Your task to perform on an android device: open app "VLC for Android" Image 0: 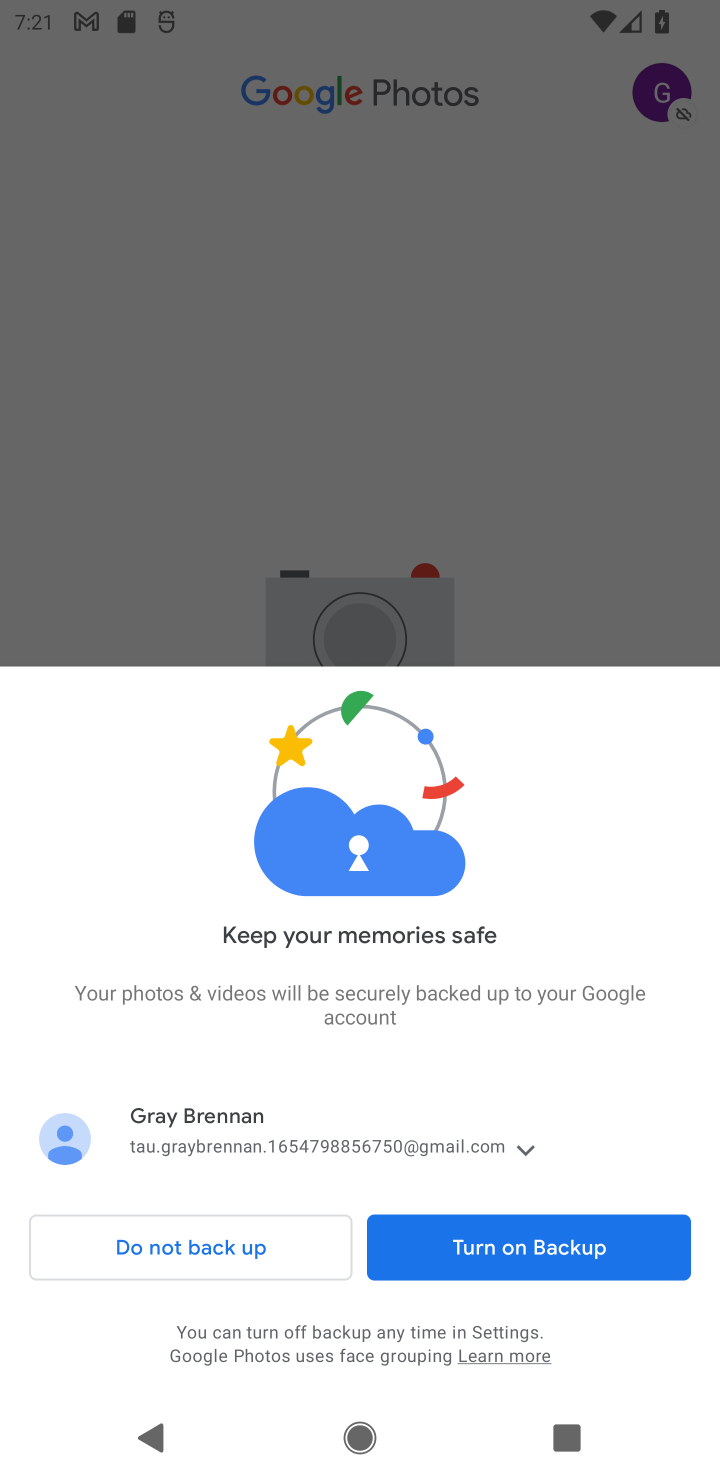
Step 0: press home button
Your task to perform on an android device: open app "VLC for Android" Image 1: 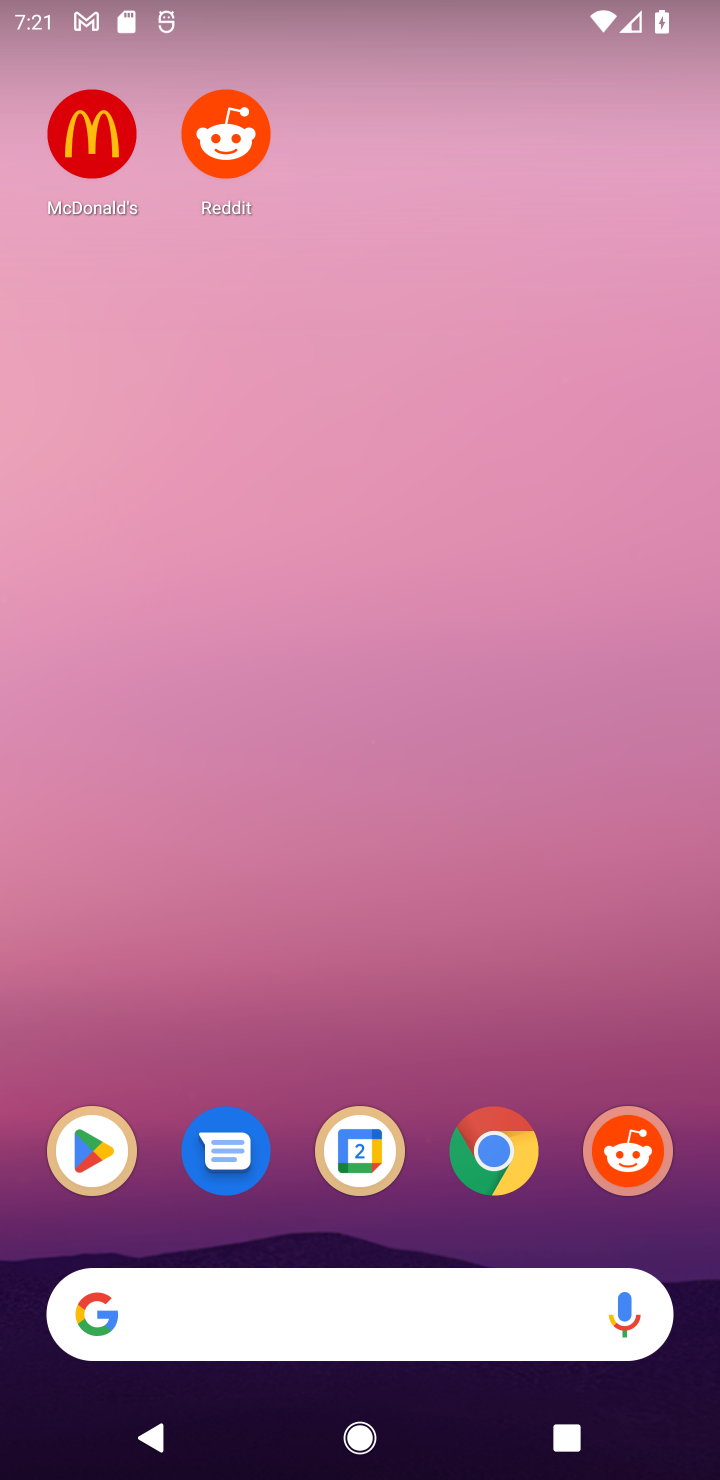
Step 1: drag from (379, 1258) to (230, 58)
Your task to perform on an android device: open app "VLC for Android" Image 2: 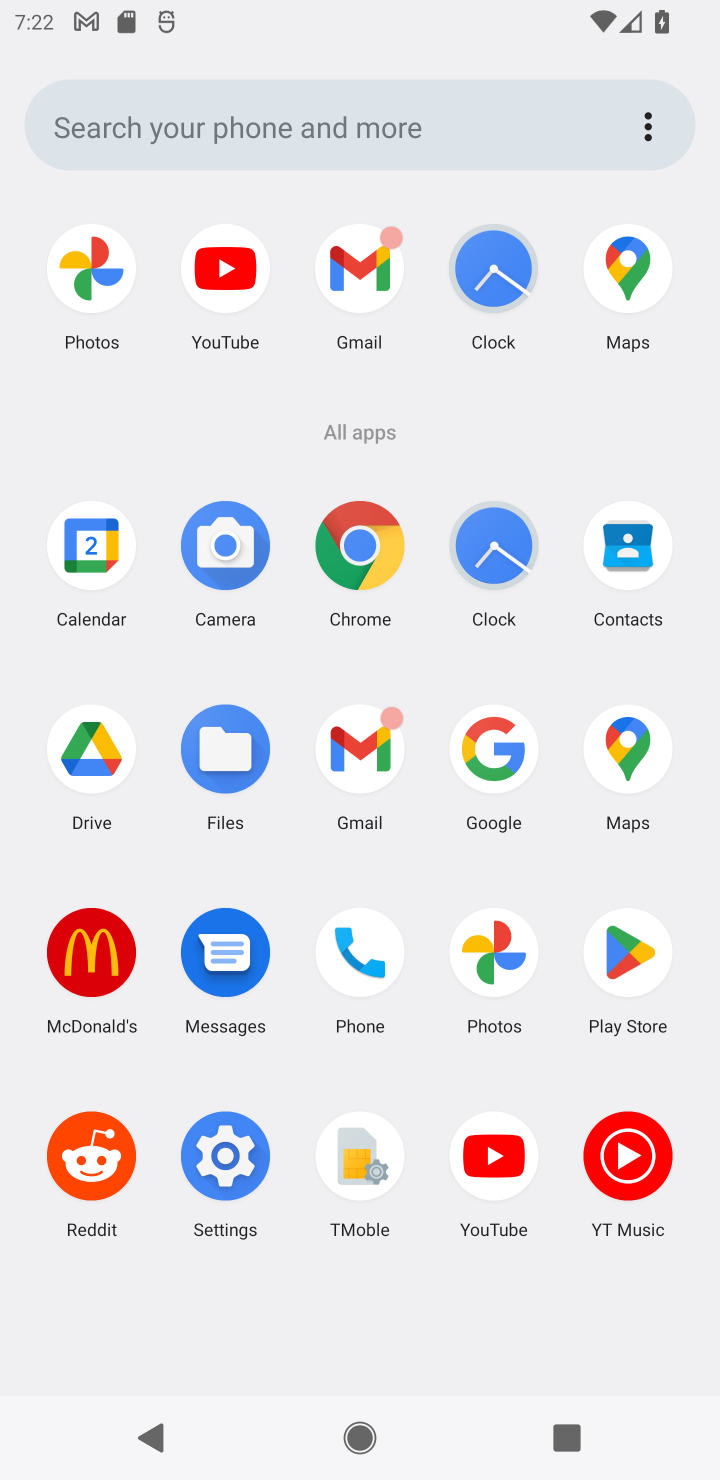
Step 2: click (592, 983)
Your task to perform on an android device: open app "VLC for Android" Image 3: 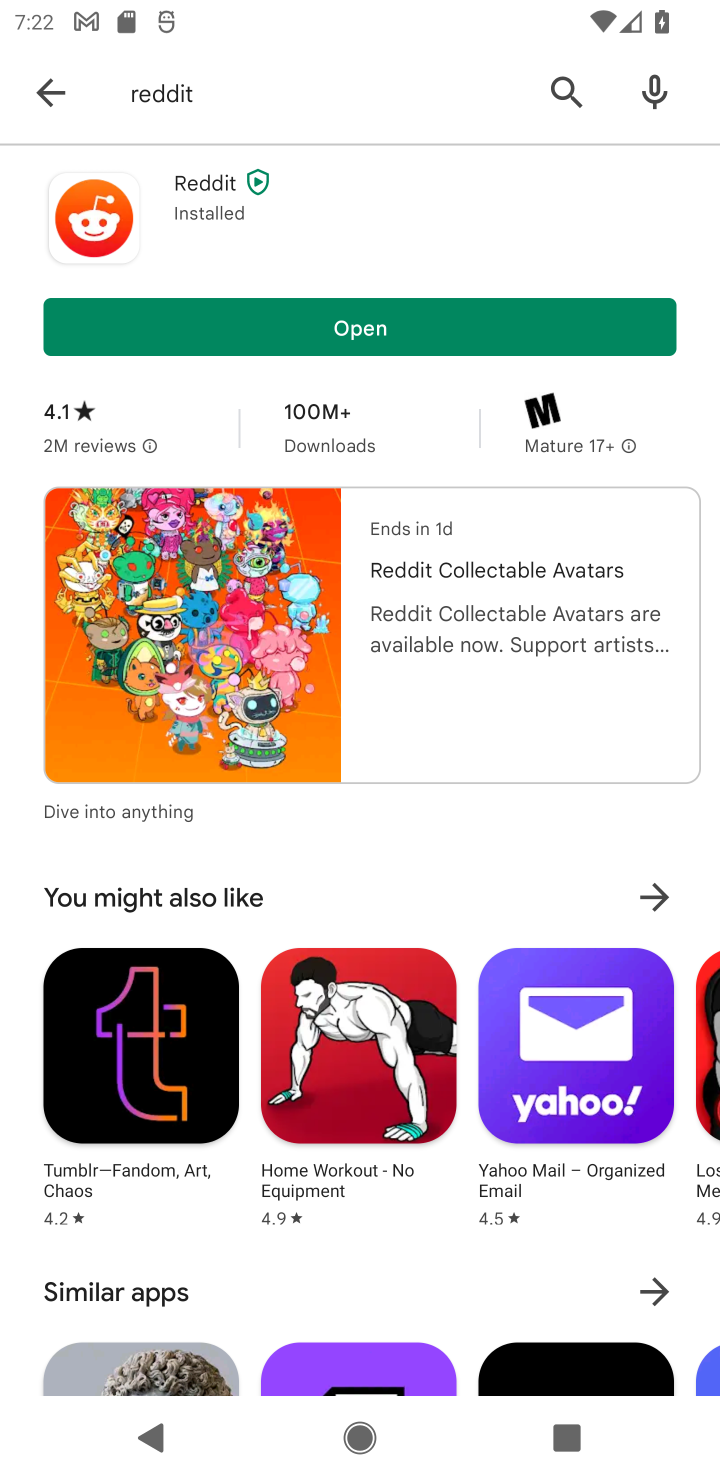
Step 3: click (44, 99)
Your task to perform on an android device: open app "VLC for Android" Image 4: 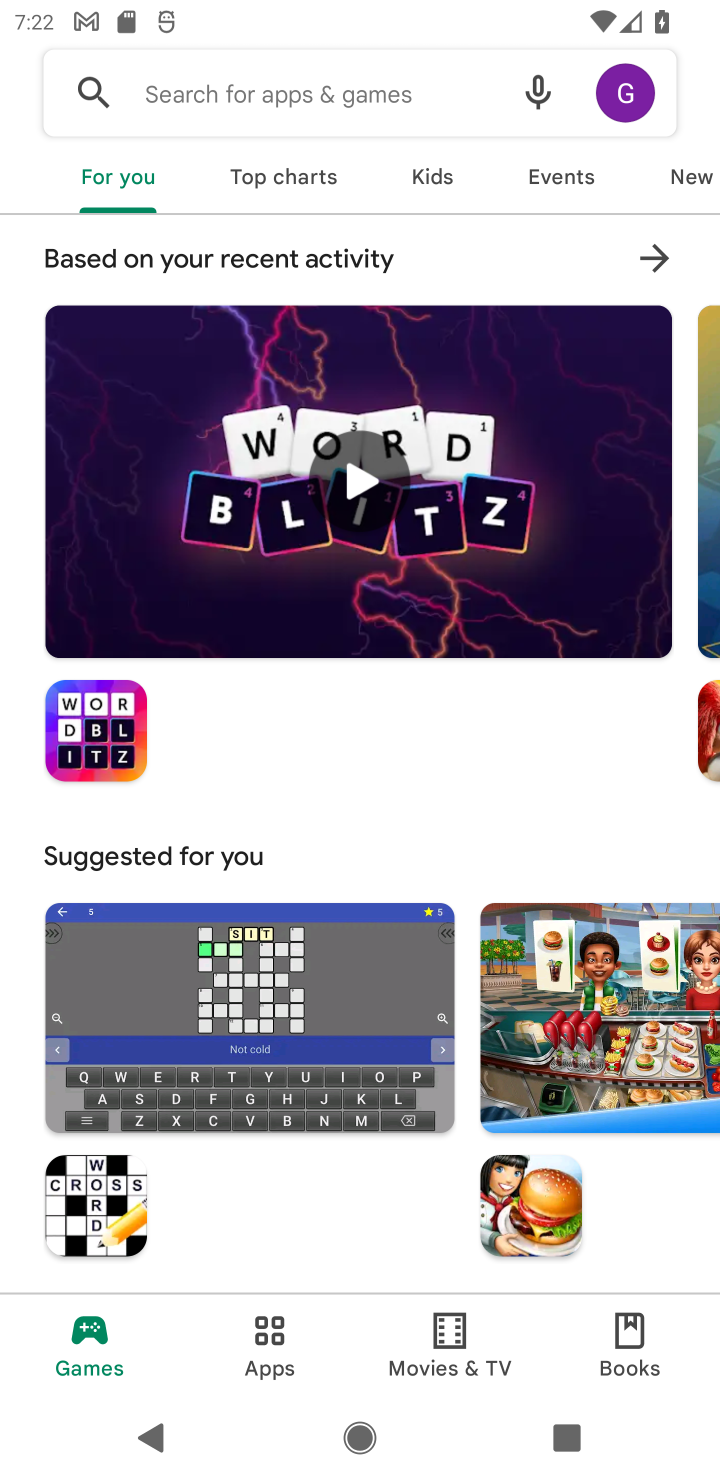
Step 4: click (179, 95)
Your task to perform on an android device: open app "VLC for Android" Image 5: 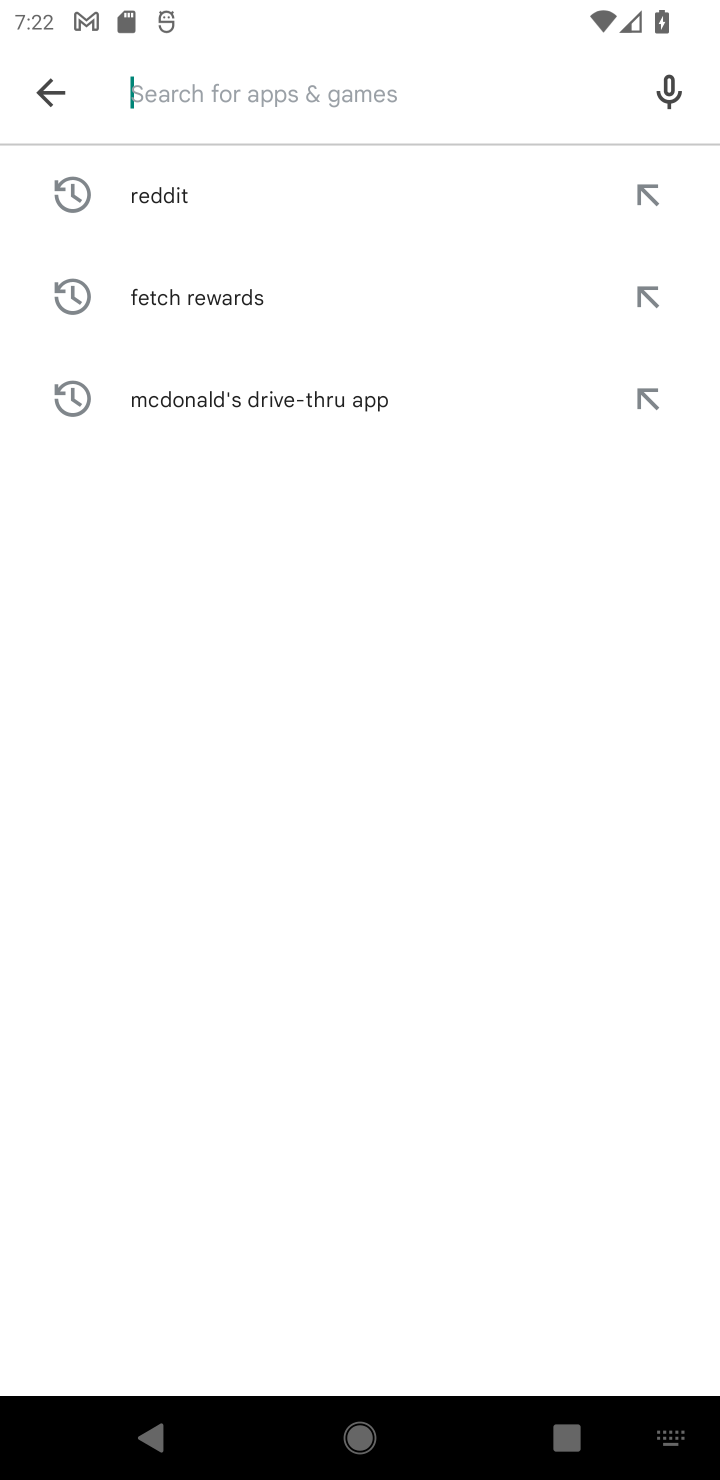
Step 5: type "VLC for Android"
Your task to perform on an android device: open app "VLC for Android" Image 6: 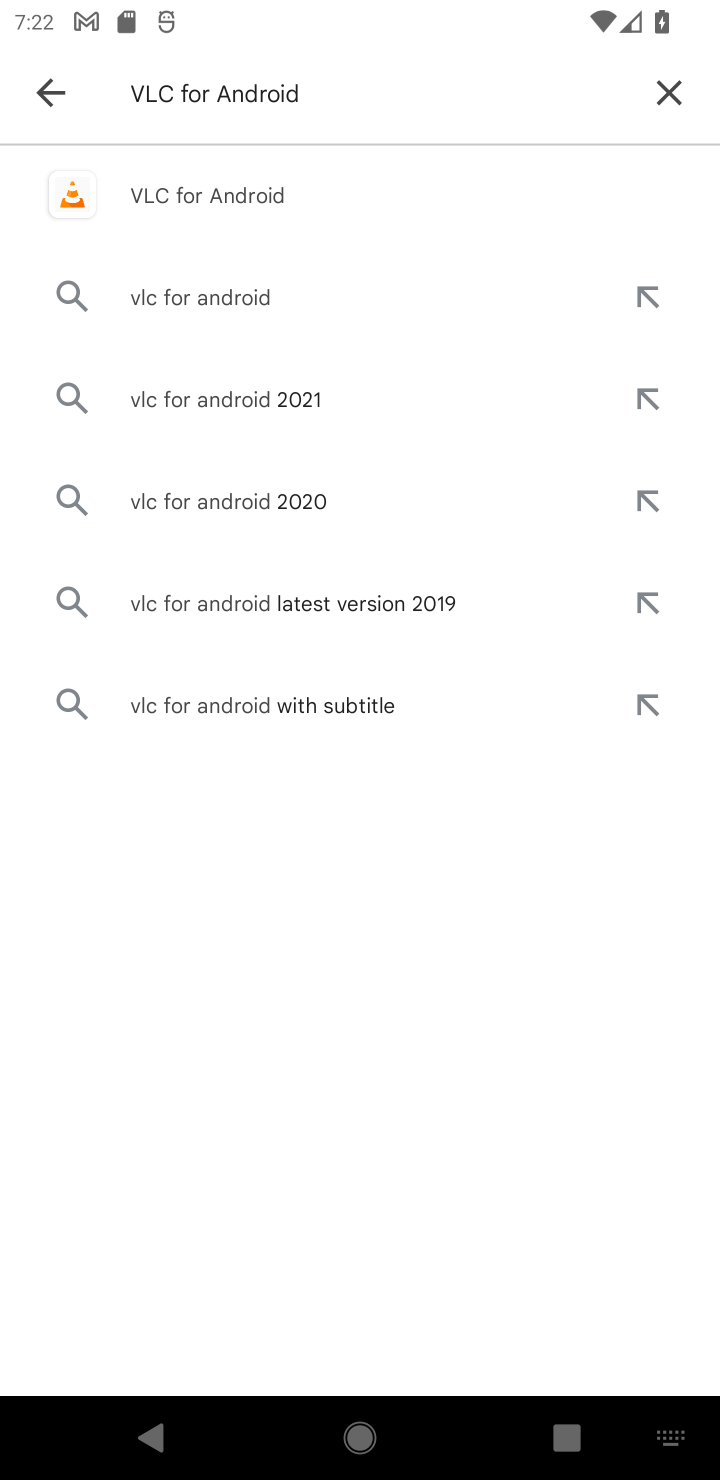
Step 6: click (156, 215)
Your task to perform on an android device: open app "VLC for Android" Image 7: 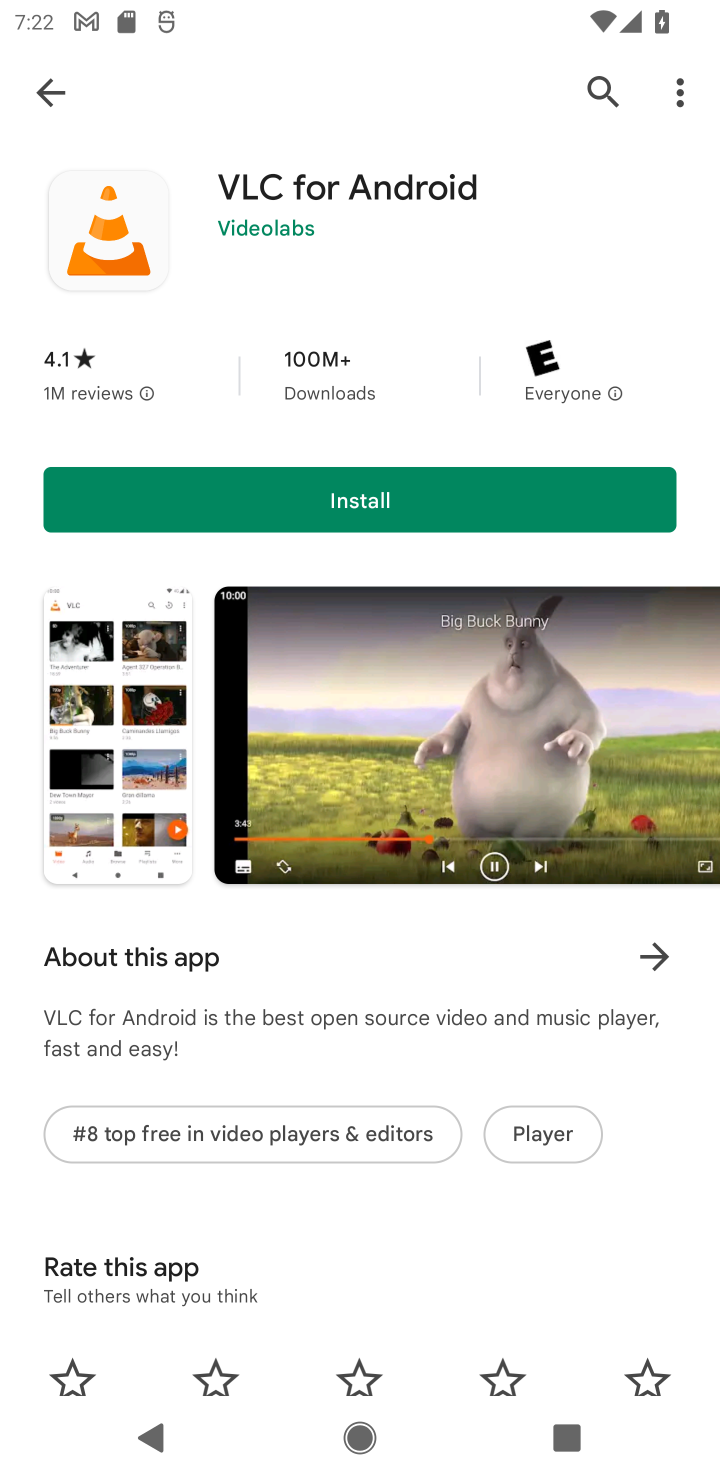
Step 7: task complete